Your task to perform on an android device: open a bookmark in the chrome app Image 0: 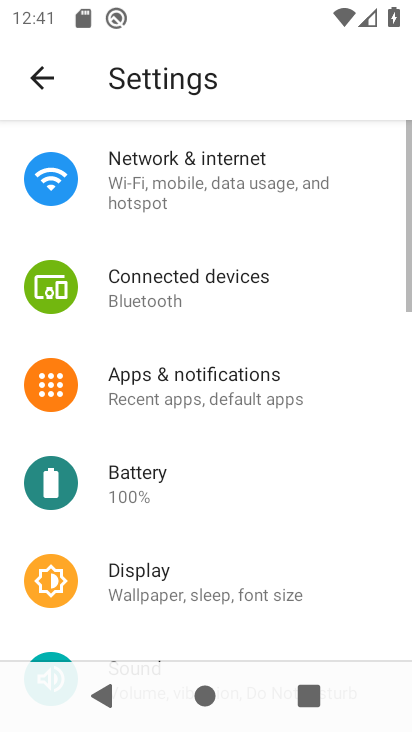
Step 0: press home button
Your task to perform on an android device: open a bookmark in the chrome app Image 1: 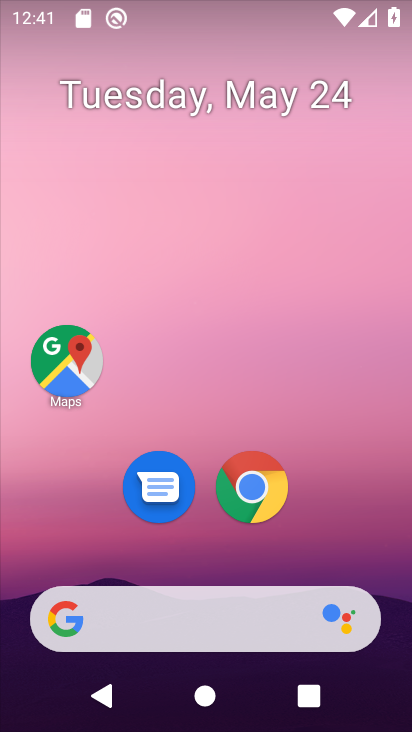
Step 1: click (256, 497)
Your task to perform on an android device: open a bookmark in the chrome app Image 2: 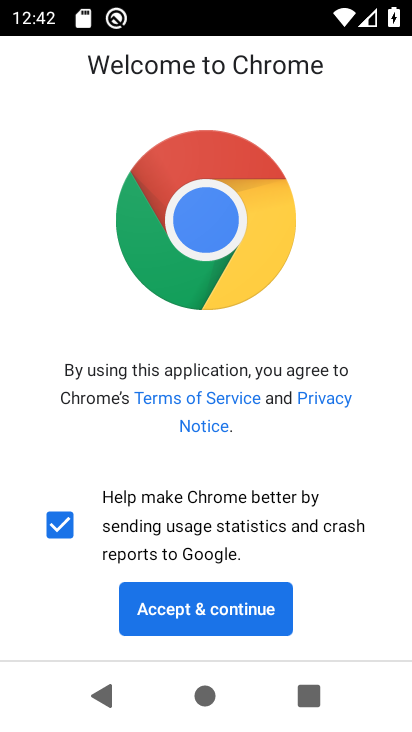
Step 2: click (228, 607)
Your task to perform on an android device: open a bookmark in the chrome app Image 3: 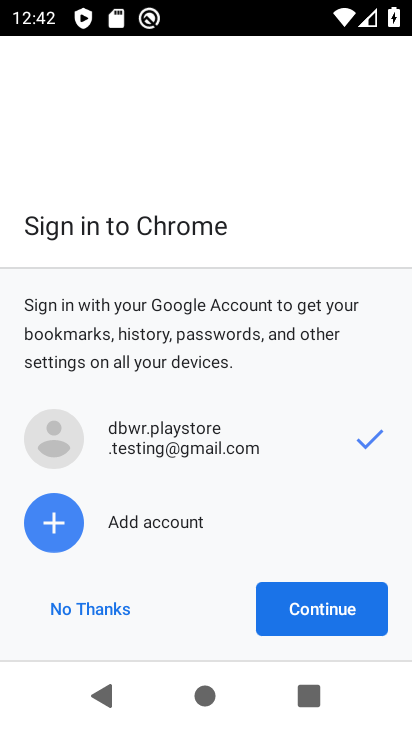
Step 3: click (296, 611)
Your task to perform on an android device: open a bookmark in the chrome app Image 4: 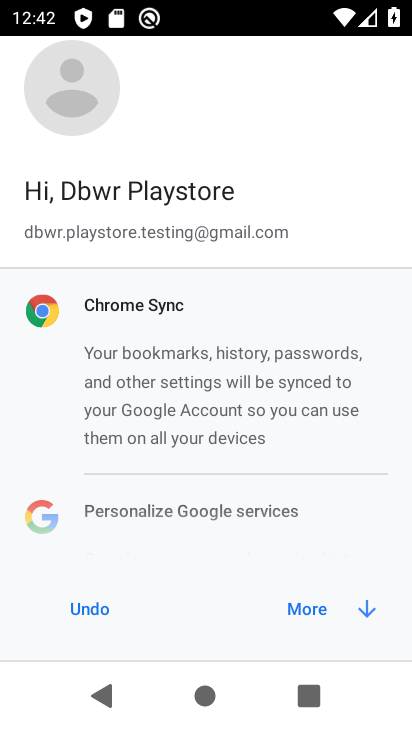
Step 4: click (314, 609)
Your task to perform on an android device: open a bookmark in the chrome app Image 5: 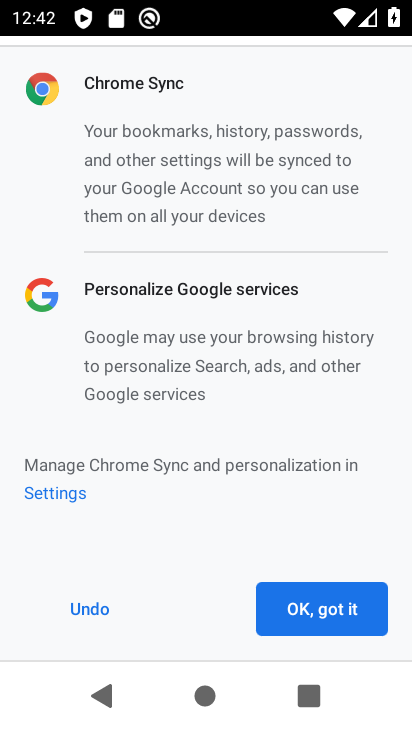
Step 5: click (313, 610)
Your task to perform on an android device: open a bookmark in the chrome app Image 6: 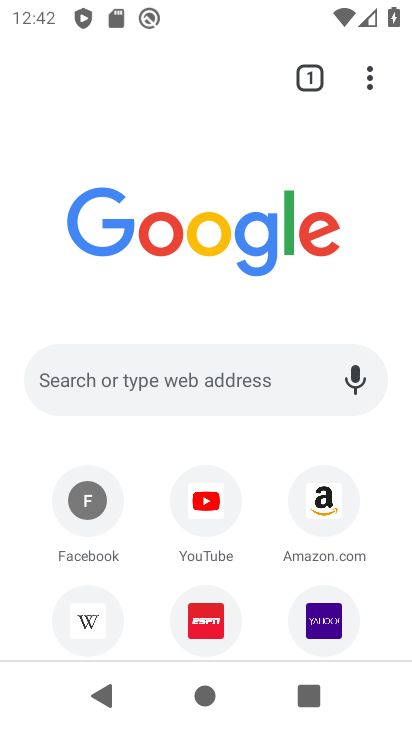
Step 6: click (370, 87)
Your task to perform on an android device: open a bookmark in the chrome app Image 7: 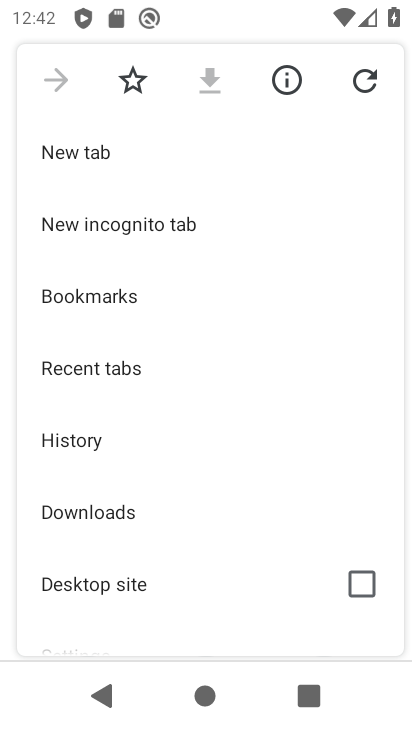
Step 7: click (97, 294)
Your task to perform on an android device: open a bookmark in the chrome app Image 8: 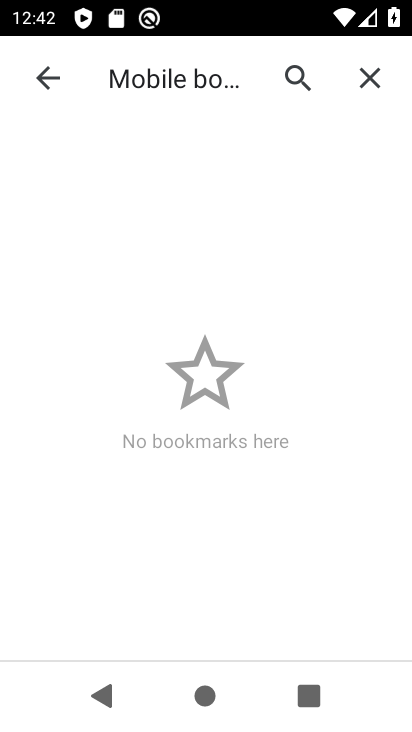
Step 8: task complete